Your task to perform on an android device: see creations saved in the google photos Image 0: 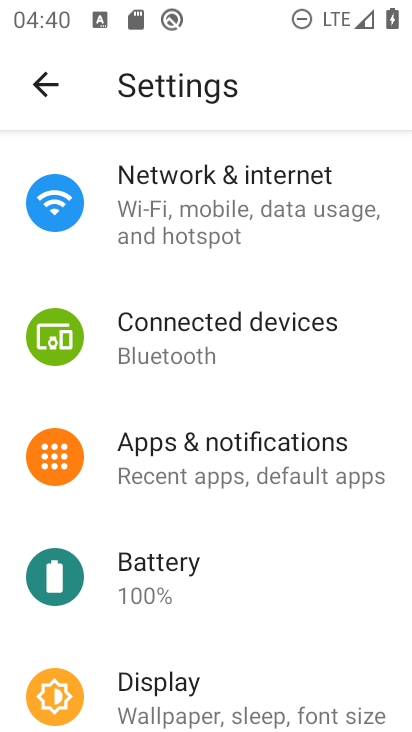
Step 0: press home button
Your task to perform on an android device: see creations saved in the google photos Image 1: 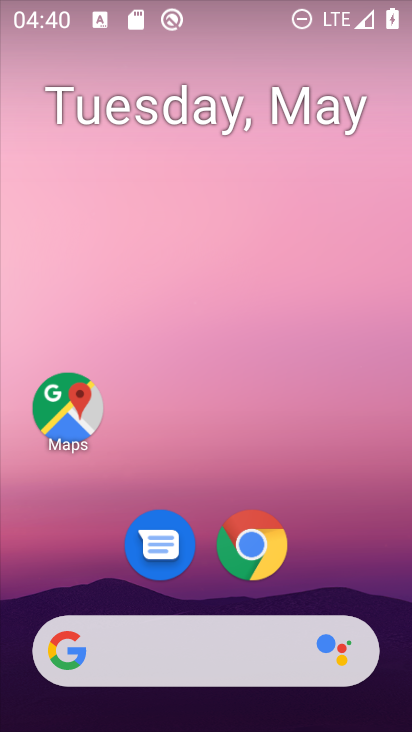
Step 1: drag from (379, 616) to (342, 134)
Your task to perform on an android device: see creations saved in the google photos Image 2: 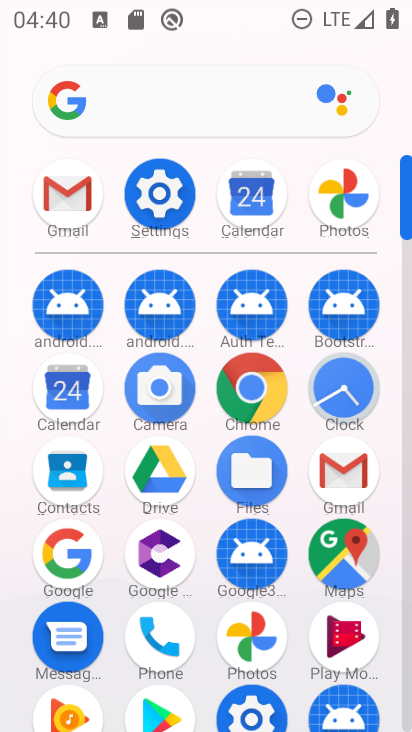
Step 2: click (408, 678)
Your task to perform on an android device: see creations saved in the google photos Image 3: 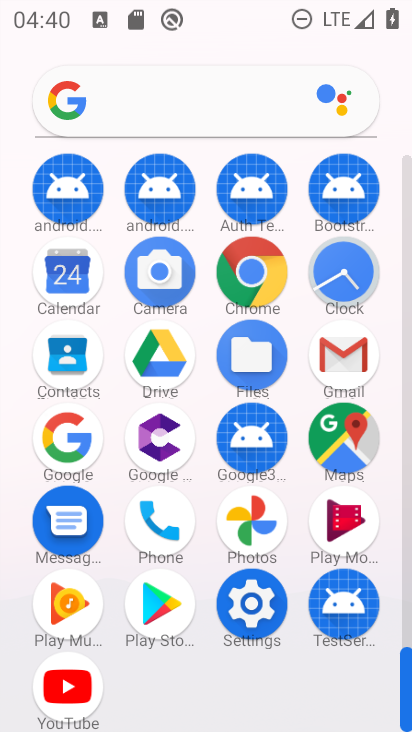
Step 3: click (254, 518)
Your task to perform on an android device: see creations saved in the google photos Image 4: 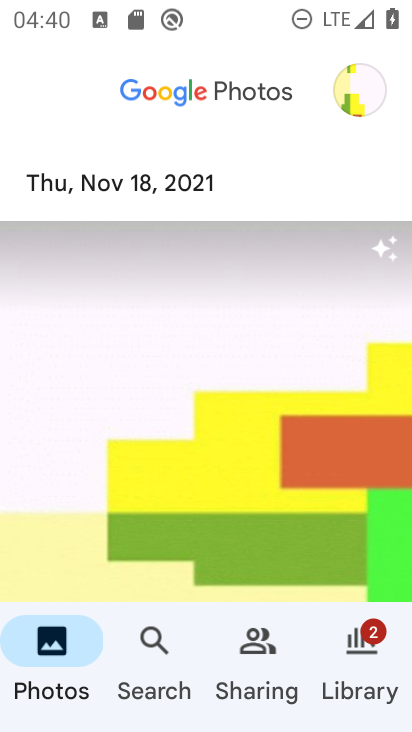
Step 4: task complete